Your task to perform on an android device: toggle data saver in the chrome app Image 0: 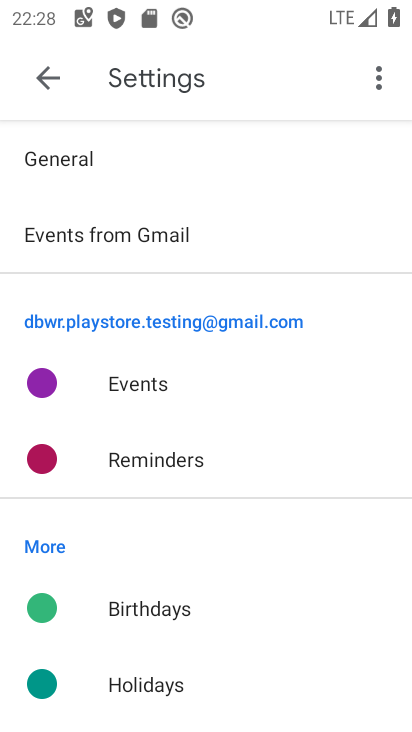
Step 0: press home button
Your task to perform on an android device: toggle data saver in the chrome app Image 1: 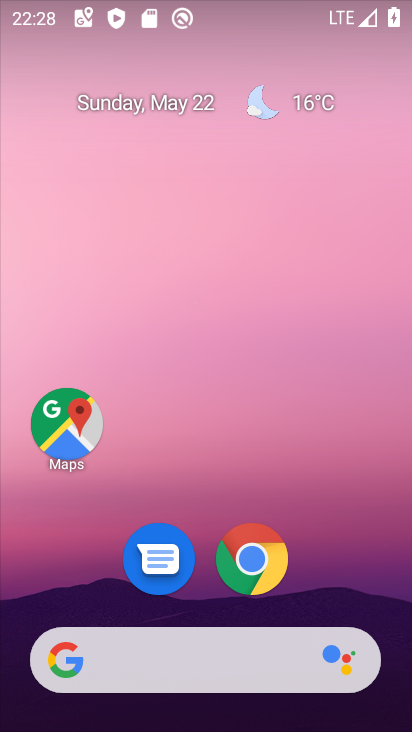
Step 1: drag from (212, 710) to (197, 178)
Your task to perform on an android device: toggle data saver in the chrome app Image 2: 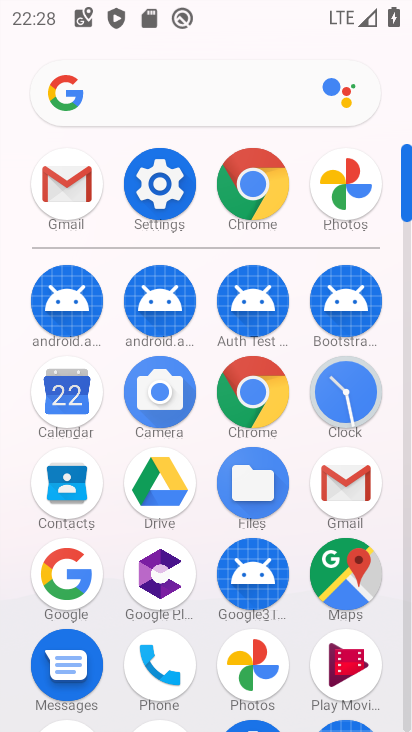
Step 2: click (250, 194)
Your task to perform on an android device: toggle data saver in the chrome app Image 3: 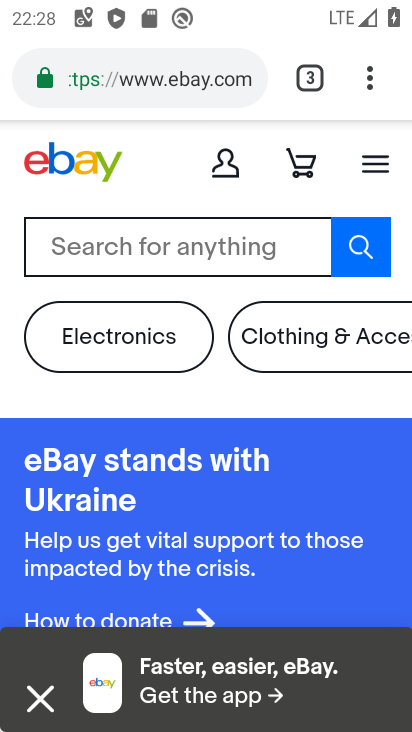
Step 3: click (352, 89)
Your task to perform on an android device: toggle data saver in the chrome app Image 4: 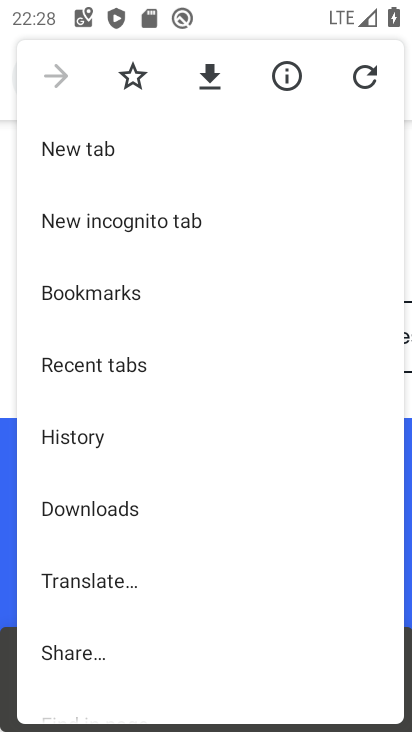
Step 4: drag from (171, 663) to (189, 330)
Your task to perform on an android device: toggle data saver in the chrome app Image 5: 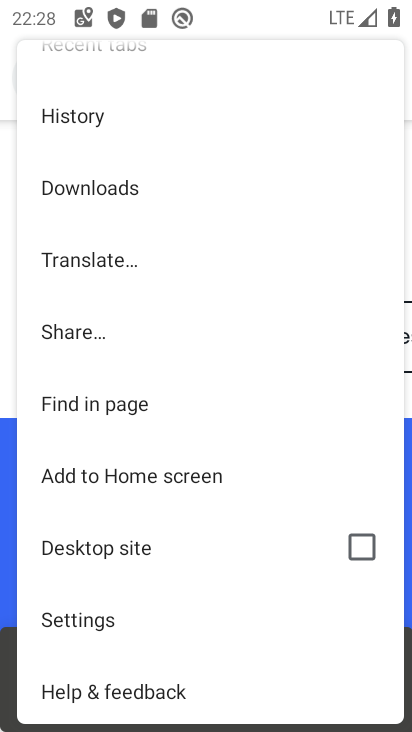
Step 5: click (112, 618)
Your task to perform on an android device: toggle data saver in the chrome app Image 6: 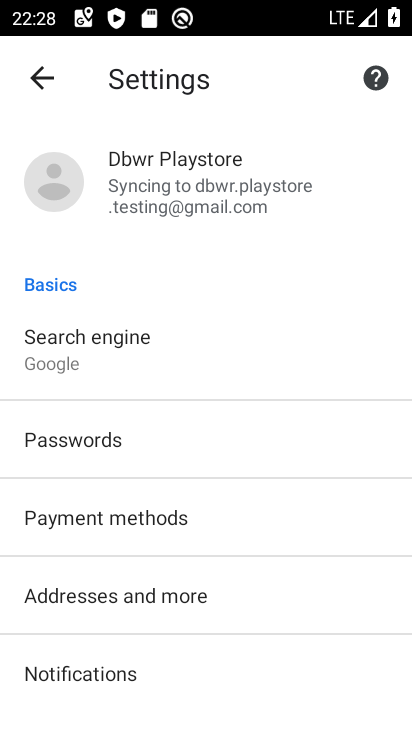
Step 6: drag from (131, 614) to (143, 430)
Your task to perform on an android device: toggle data saver in the chrome app Image 7: 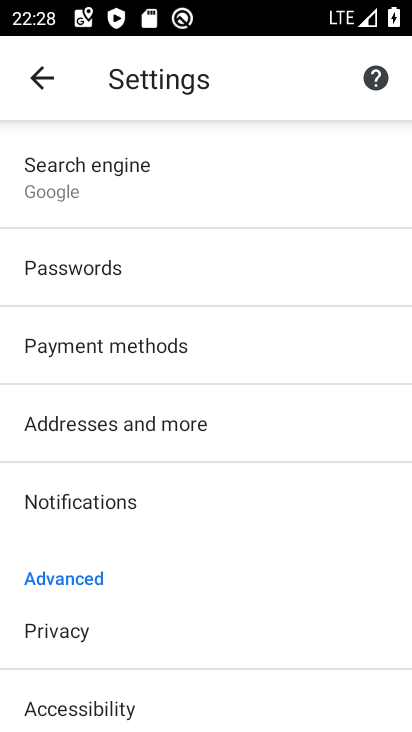
Step 7: drag from (126, 613) to (177, 420)
Your task to perform on an android device: toggle data saver in the chrome app Image 8: 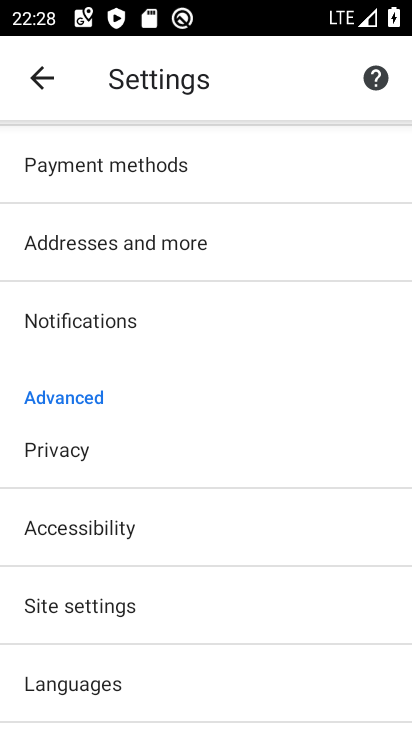
Step 8: drag from (126, 602) to (186, 358)
Your task to perform on an android device: toggle data saver in the chrome app Image 9: 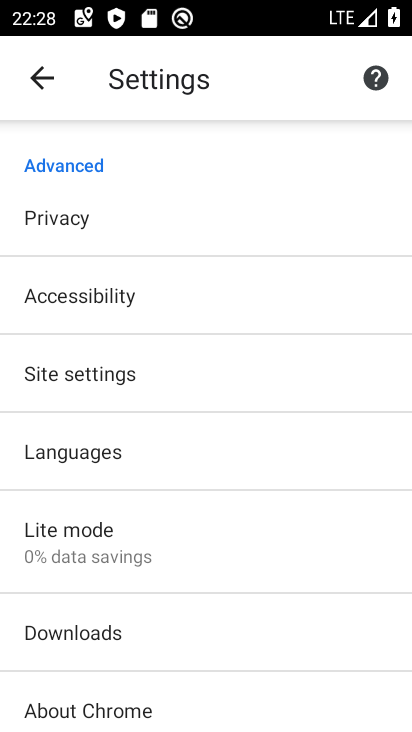
Step 9: click (116, 555)
Your task to perform on an android device: toggle data saver in the chrome app Image 10: 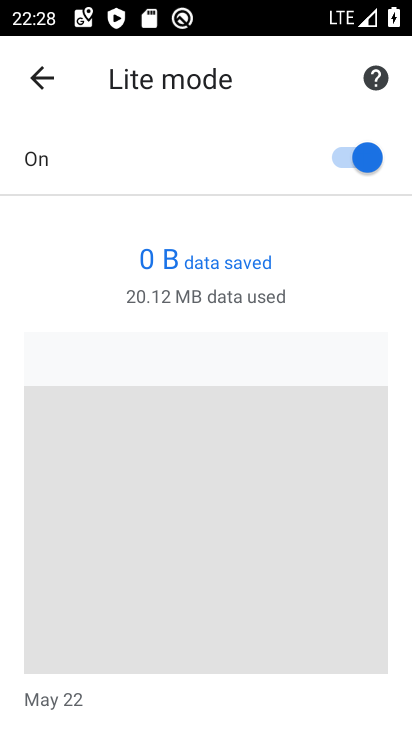
Step 10: task complete